Your task to perform on an android device: Go to Yahoo.com Image 0: 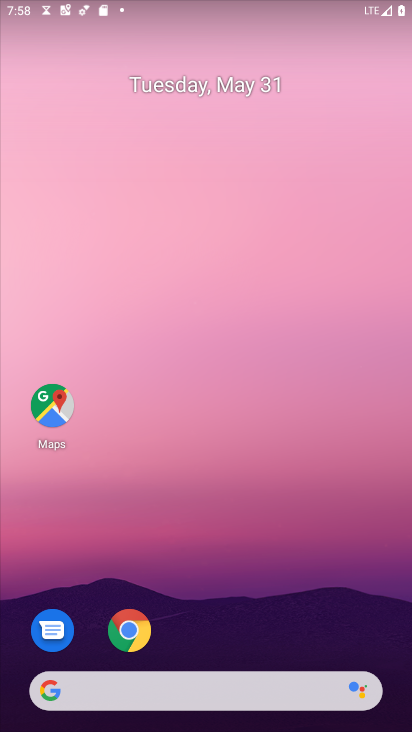
Step 0: click (130, 629)
Your task to perform on an android device: Go to Yahoo.com Image 1: 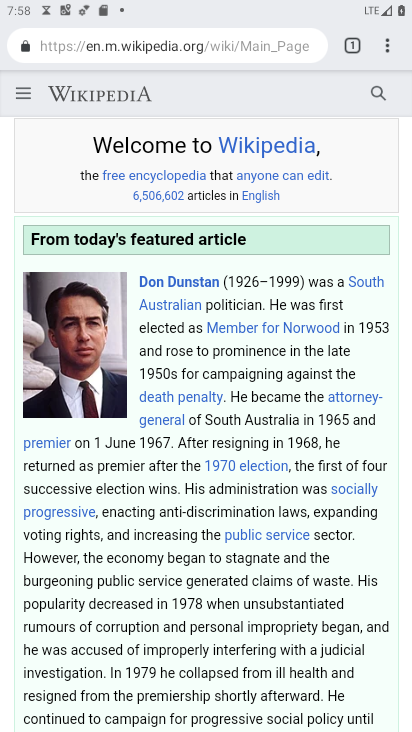
Step 1: click (233, 45)
Your task to perform on an android device: Go to Yahoo.com Image 2: 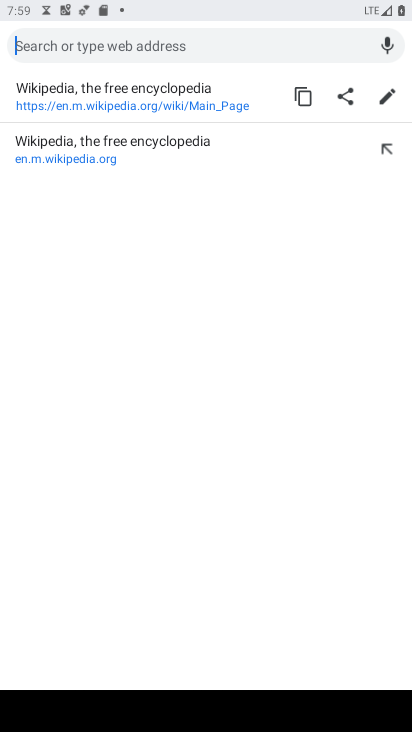
Step 2: type "Yahoo.com"
Your task to perform on an android device: Go to Yahoo.com Image 3: 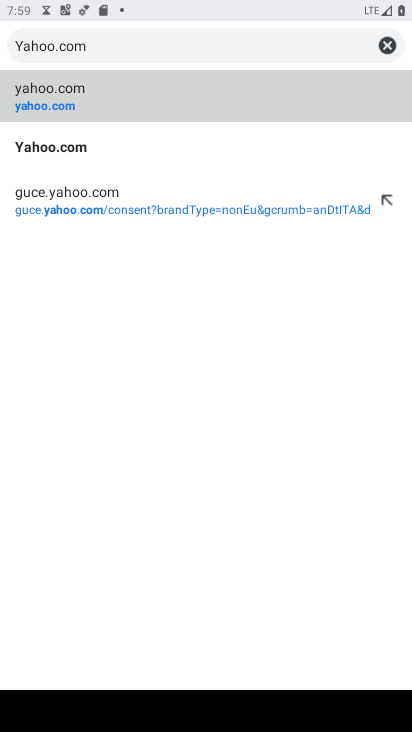
Step 3: click (73, 146)
Your task to perform on an android device: Go to Yahoo.com Image 4: 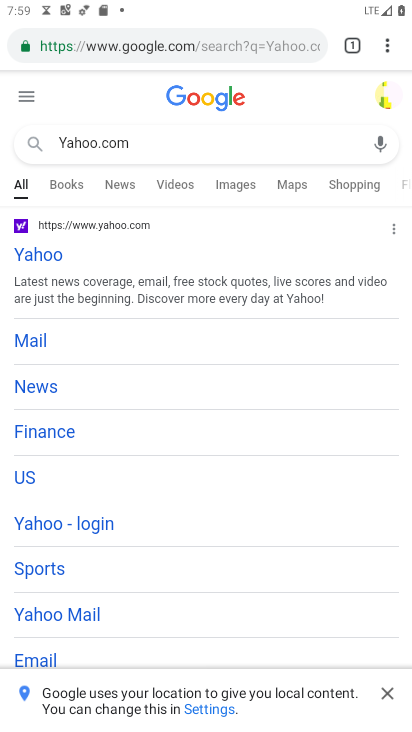
Step 4: click (54, 253)
Your task to perform on an android device: Go to Yahoo.com Image 5: 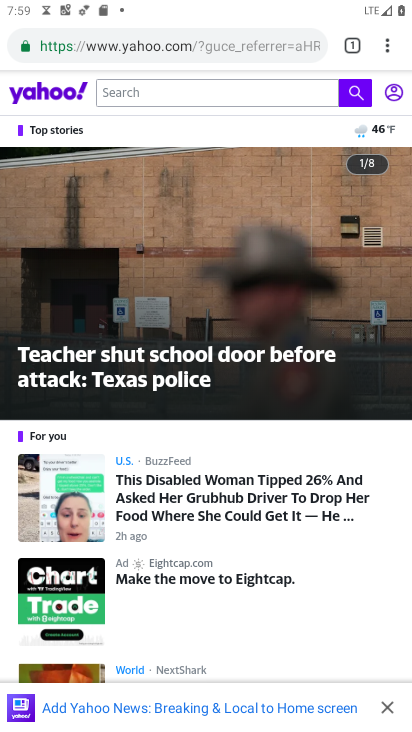
Step 5: task complete